Your task to perform on an android device: open a bookmark in the chrome app Image 0: 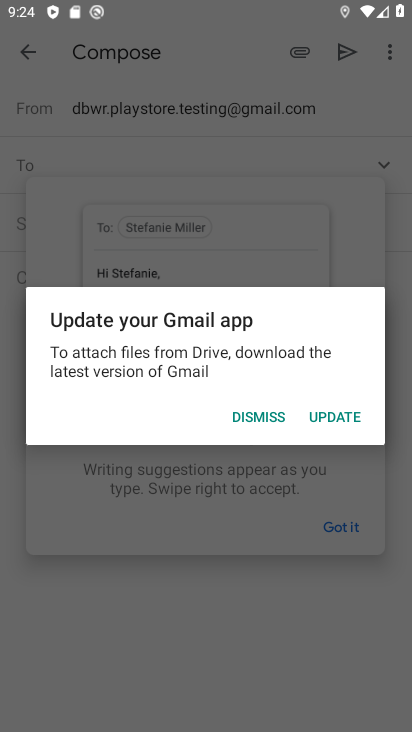
Step 0: press home button
Your task to perform on an android device: open a bookmark in the chrome app Image 1: 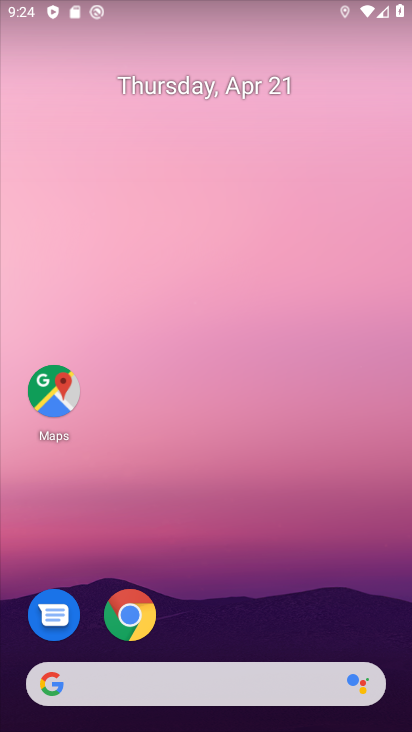
Step 1: click (137, 613)
Your task to perform on an android device: open a bookmark in the chrome app Image 2: 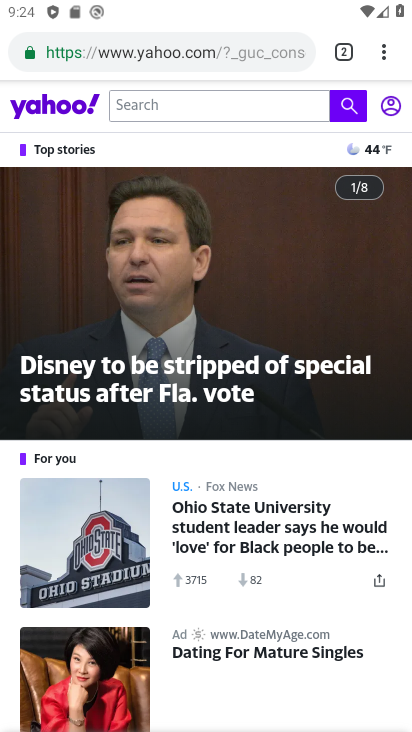
Step 2: task complete